Your task to perform on an android device: Open Google Image 0: 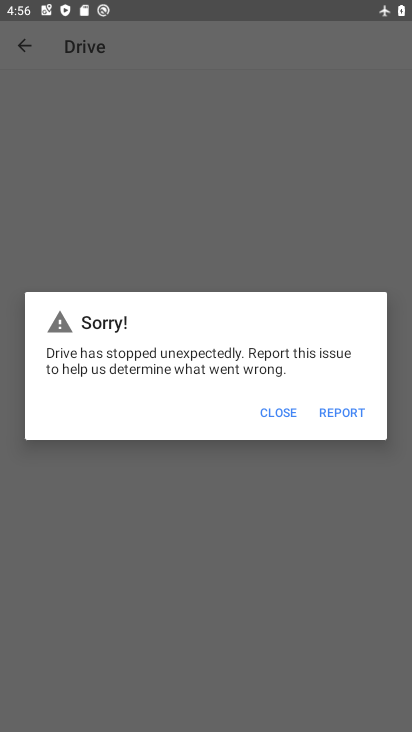
Step 0: press home button
Your task to perform on an android device: Open Google Image 1: 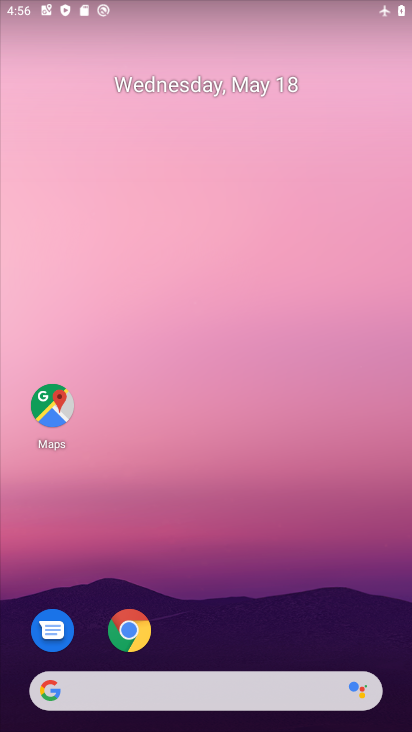
Step 1: drag from (226, 610) to (156, 69)
Your task to perform on an android device: Open Google Image 2: 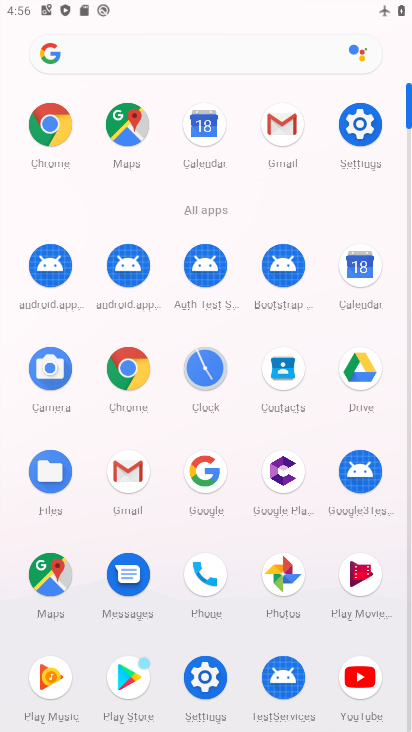
Step 2: click (202, 470)
Your task to perform on an android device: Open Google Image 3: 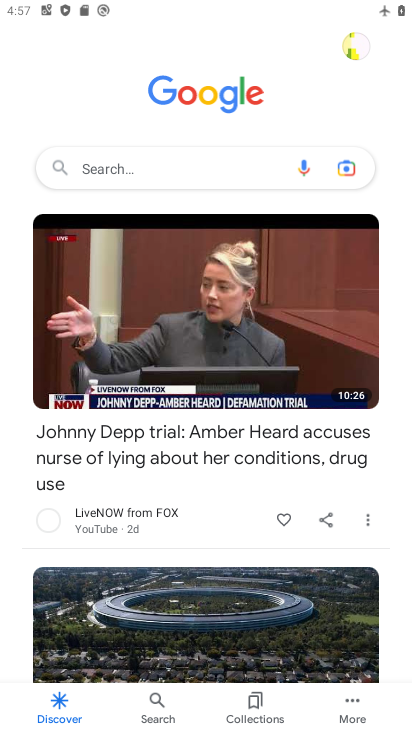
Step 3: task complete